Your task to perform on an android device: snooze an email in the gmail app Image 0: 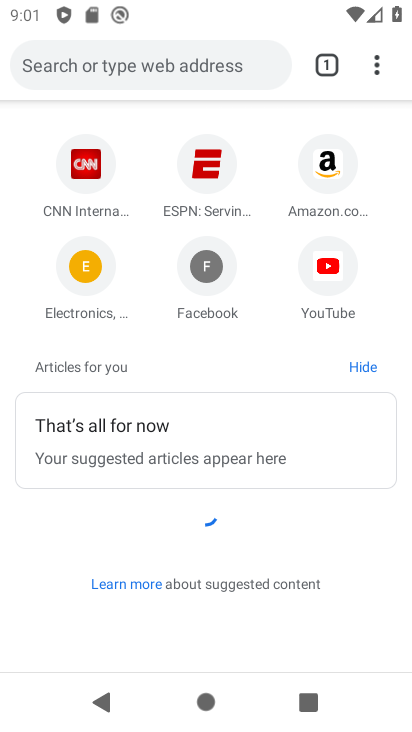
Step 0: press home button
Your task to perform on an android device: snooze an email in the gmail app Image 1: 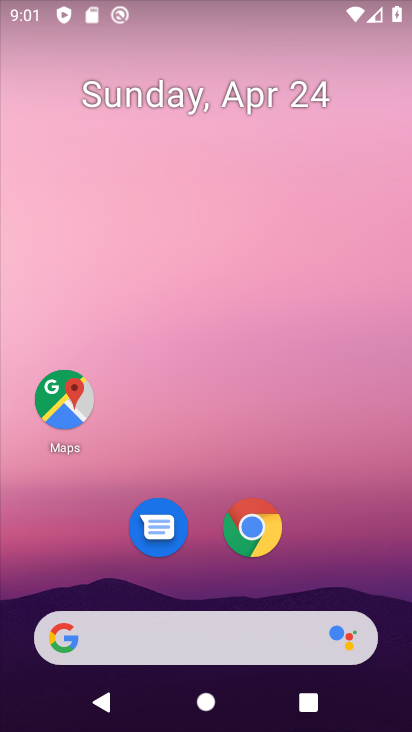
Step 1: drag from (371, 556) to (217, 89)
Your task to perform on an android device: snooze an email in the gmail app Image 2: 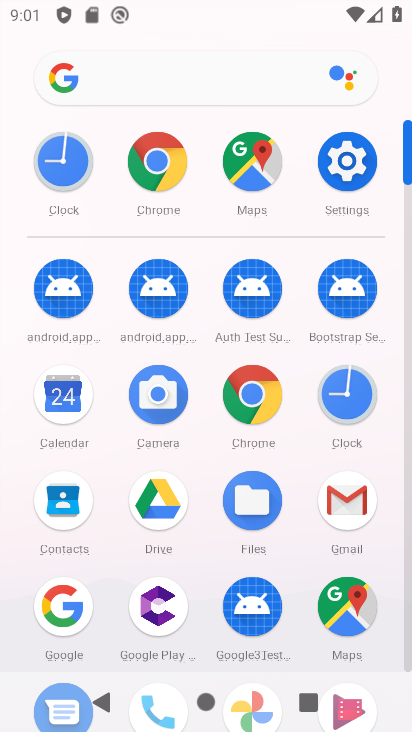
Step 2: click (352, 492)
Your task to perform on an android device: snooze an email in the gmail app Image 3: 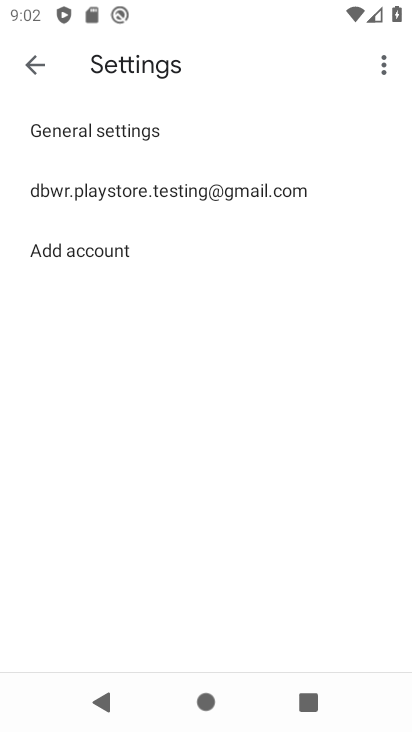
Step 3: press back button
Your task to perform on an android device: snooze an email in the gmail app Image 4: 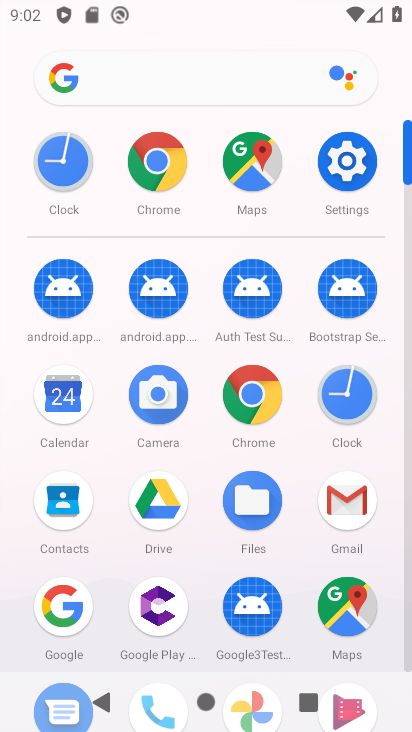
Step 4: click (354, 514)
Your task to perform on an android device: snooze an email in the gmail app Image 5: 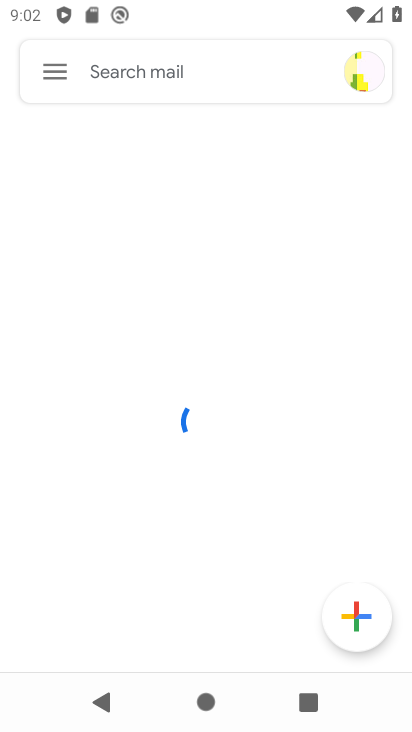
Step 5: click (39, 68)
Your task to perform on an android device: snooze an email in the gmail app Image 6: 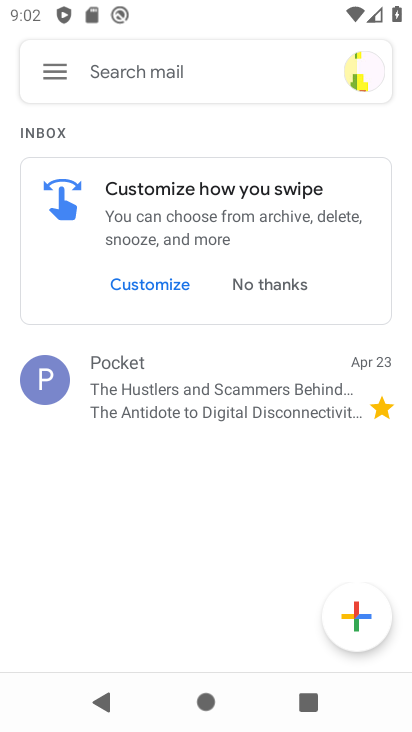
Step 6: click (138, 364)
Your task to perform on an android device: snooze an email in the gmail app Image 7: 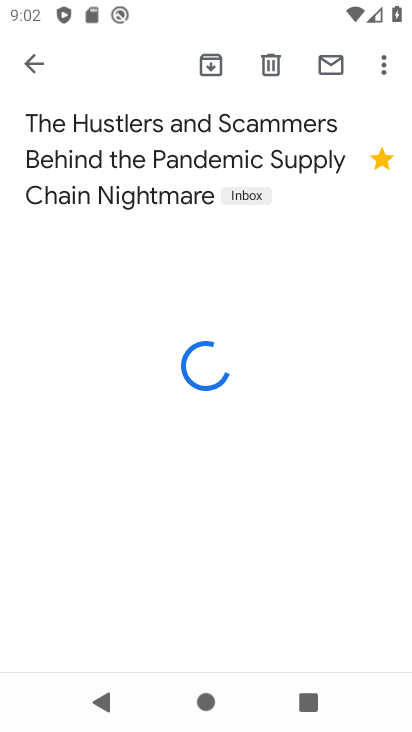
Step 7: click (375, 60)
Your task to perform on an android device: snooze an email in the gmail app Image 8: 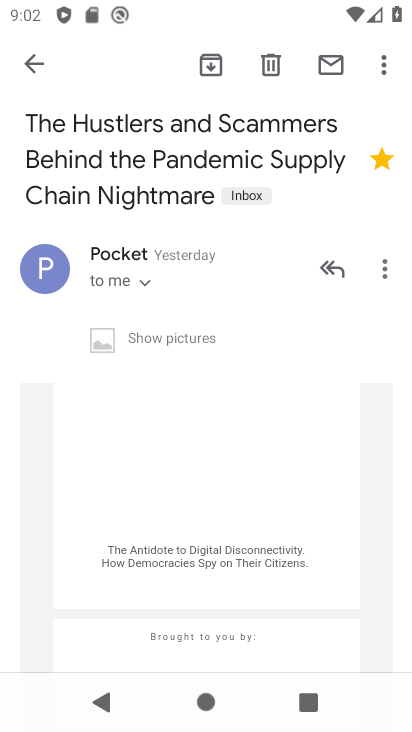
Step 8: click (382, 60)
Your task to perform on an android device: snooze an email in the gmail app Image 9: 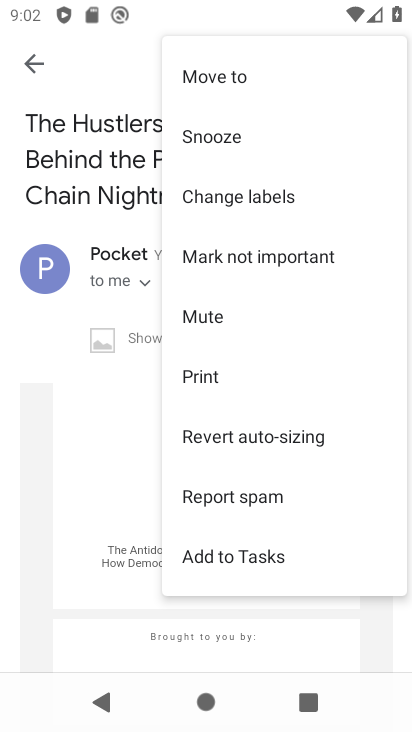
Step 9: click (193, 155)
Your task to perform on an android device: snooze an email in the gmail app Image 10: 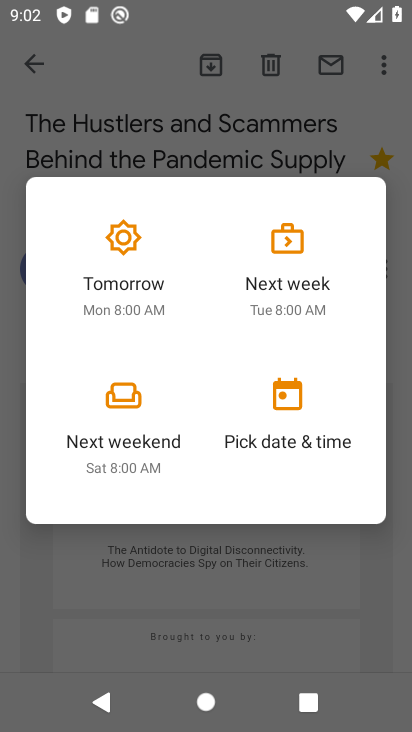
Step 10: click (273, 272)
Your task to perform on an android device: snooze an email in the gmail app Image 11: 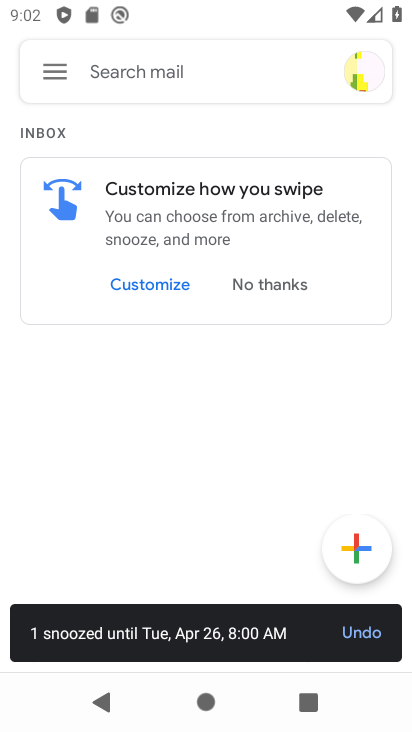
Step 11: task complete